Your task to perform on an android device: Toggle the flashlight Image 0: 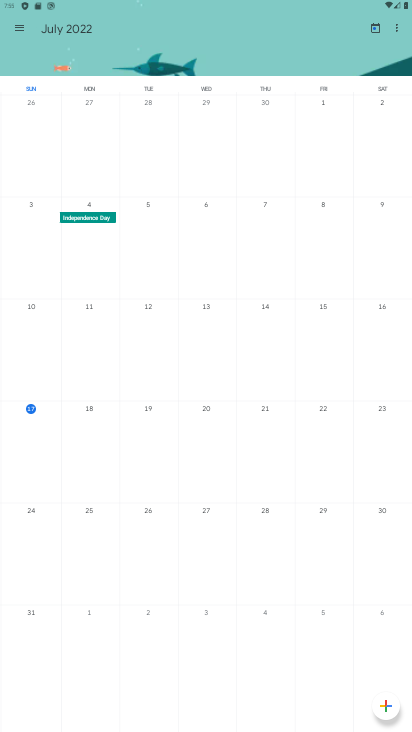
Step 0: press home button
Your task to perform on an android device: Toggle the flashlight Image 1: 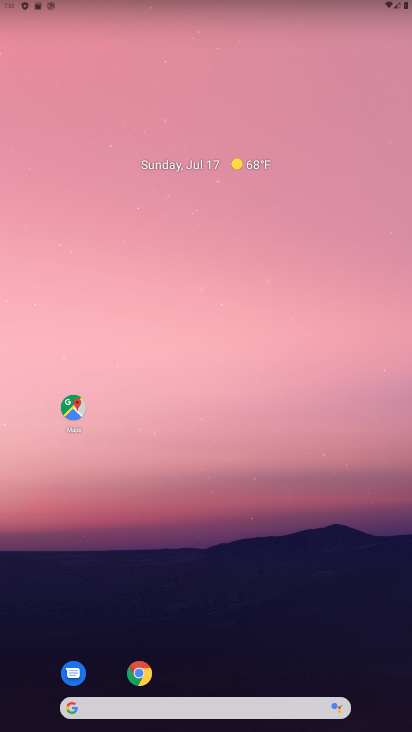
Step 1: drag from (347, 649) to (174, 86)
Your task to perform on an android device: Toggle the flashlight Image 2: 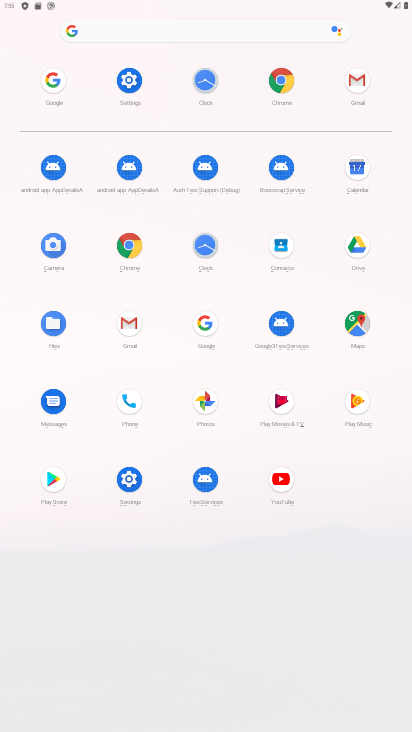
Step 2: click (118, 85)
Your task to perform on an android device: Toggle the flashlight Image 3: 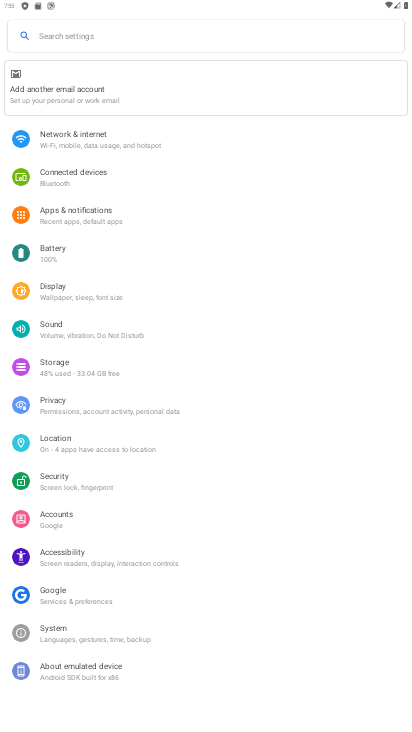
Step 3: task complete